Your task to perform on an android device: show emergency info Image 0: 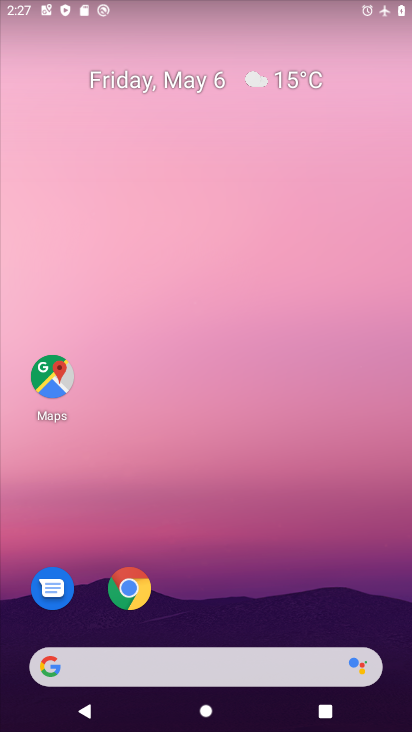
Step 0: drag from (193, 612) to (248, 306)
Your task to perform on an android device: show emergency info Image 1: 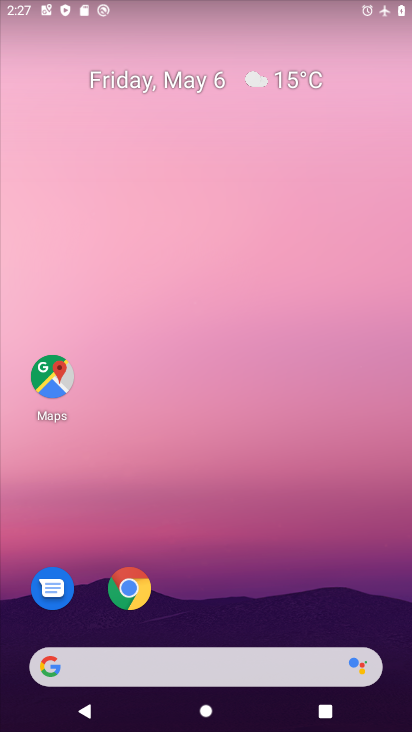
Step 1: drag from (188, 639) to (218, 157)
Your task to perform on an android device: show emergency info Image 2: 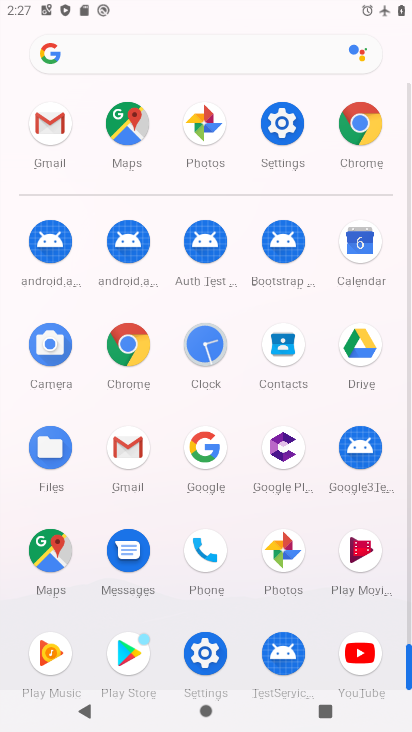
Step 2: drag from (235, 591) to (255, 159)
Your task to perform on an android device: show emergency info Image 3: 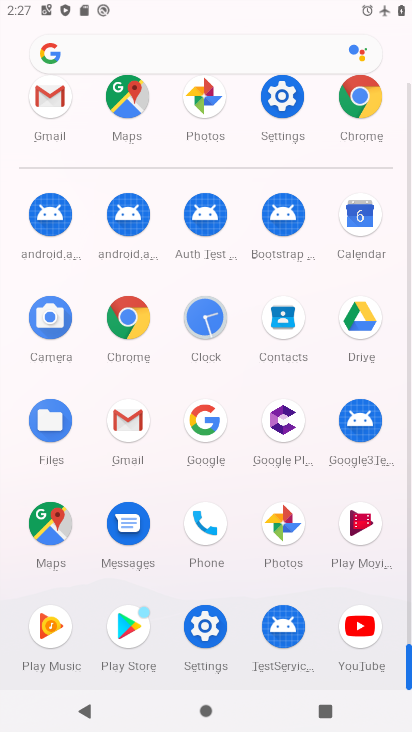
Step 3: click (195, 645)
Your task to perform on an android device: show emergency info Image 4: 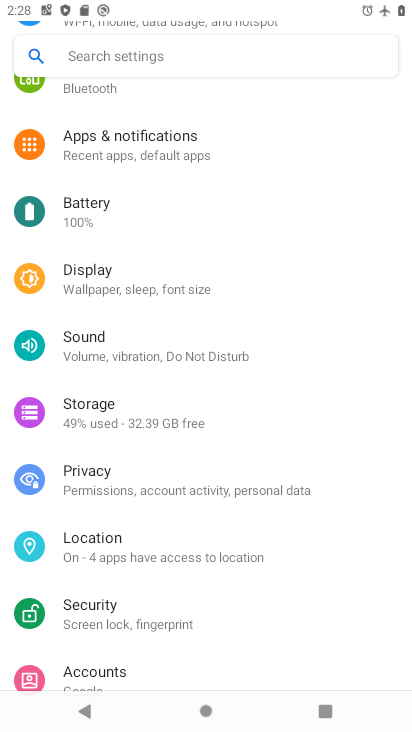
Step 4: drag from (199, 610) to (254, 157)
Your task to perform on an android device: show emergency info Image 5: 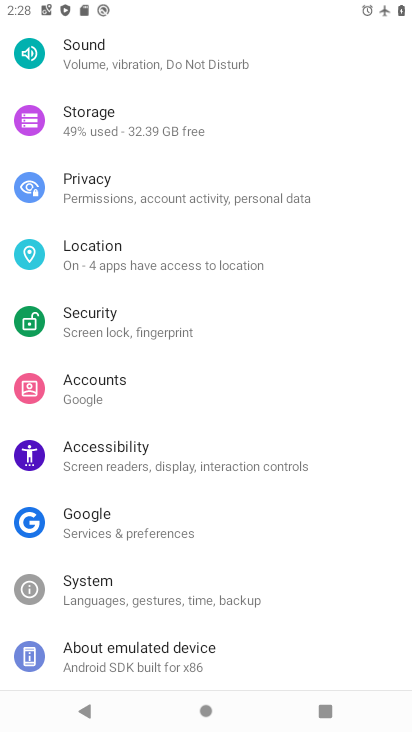
Step 5: click (127, 662)
Your task to perform on an android device: show emergency info Image 6: 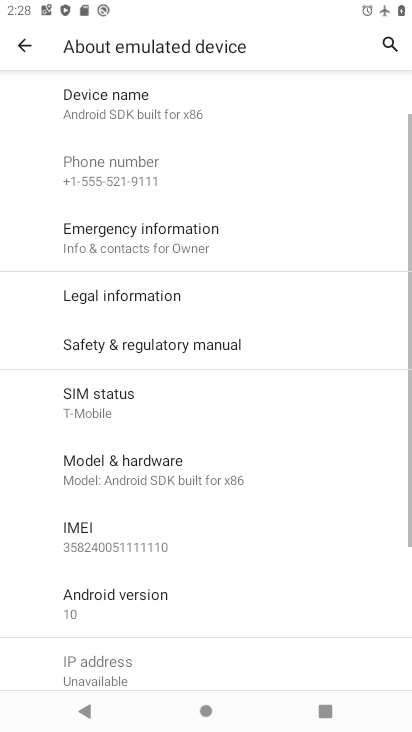
Step 6: click (176, 224)
Your task to perform on an android device: show emergency info Image 7: 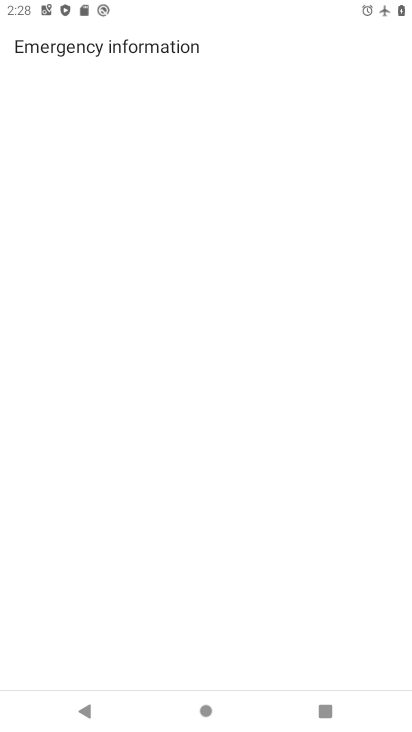
Step 7: task complete